Your task to perform on an android device: What's on my calendar today? Image 0: 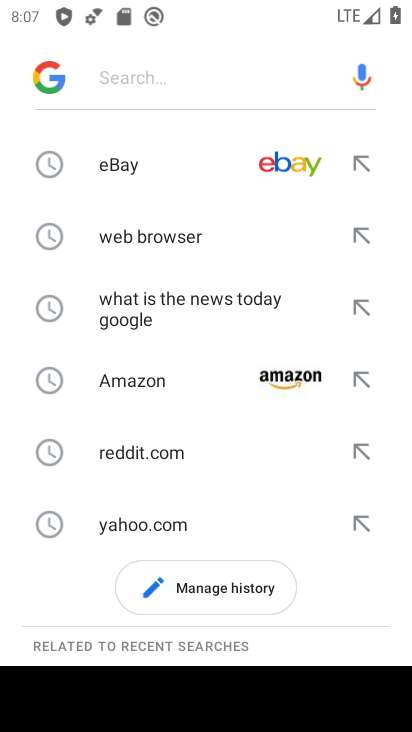
Step 0: press home button
Your task to perform on an android device: What's on my calendar today? Image 1: 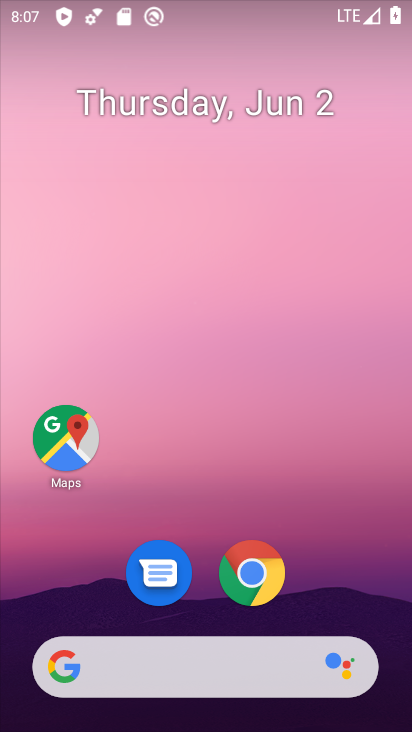
Step 1: drag from (354, 569) to (328, 8)
Your task to perform on an android device: What's on my calendar today? Image 2: 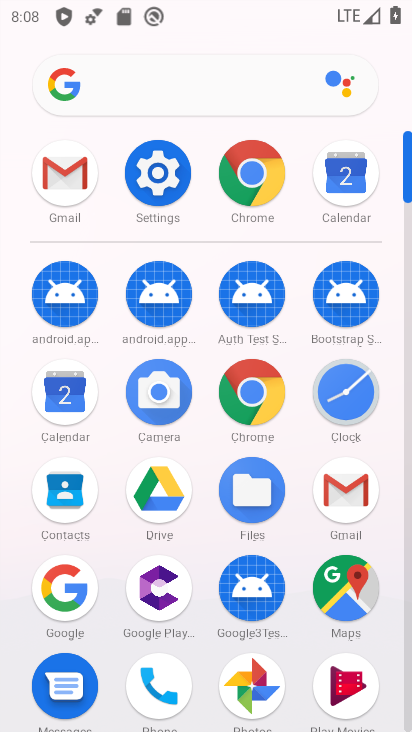
Step 2: click (61, 391)
Your task to perform on an android device: What's on my calendar today? Image 3: 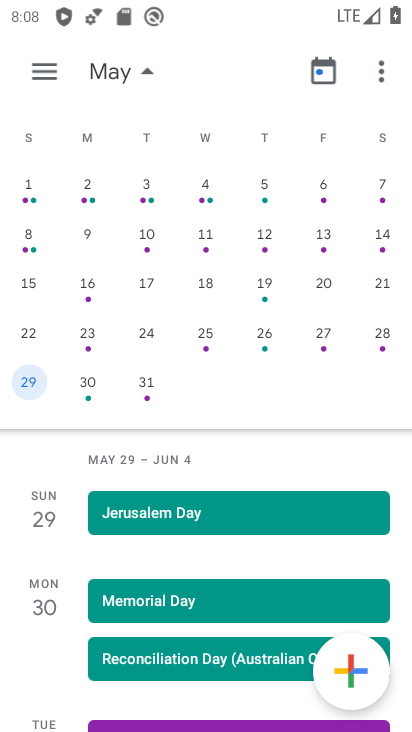
Step 3: task complete